Your task to perform on an android device: search for starred emails in the gmail app Image 0: 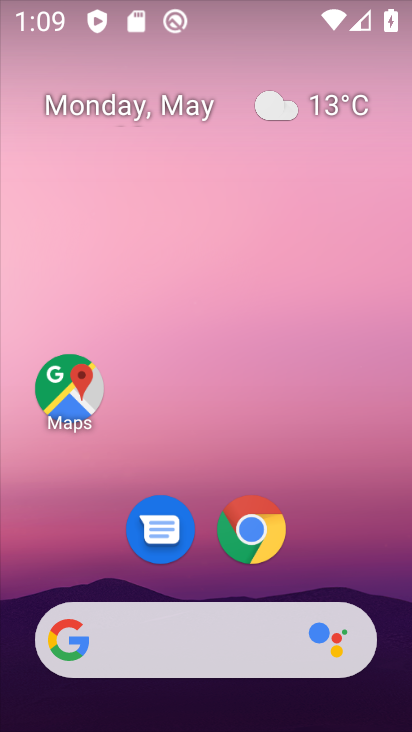
Step 0: drag from (381, 546) to (318, 133)
Your task to perform on an android device: search for starred emails in the gmail app Image 1: 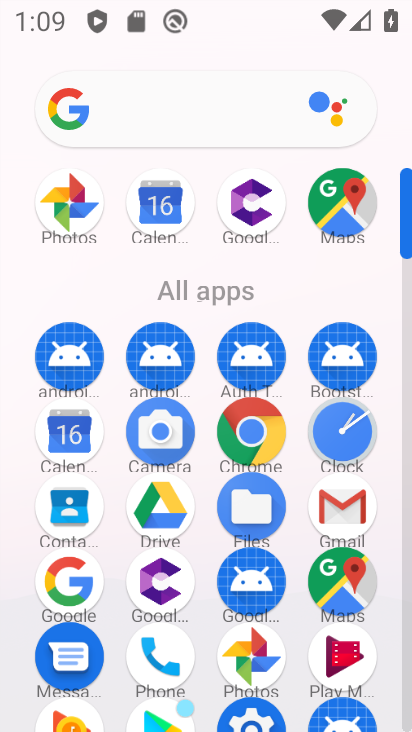
Step 1: click (334, 504)
Your task to perform on an android device: search for starred emails in the gmail app Image 2: 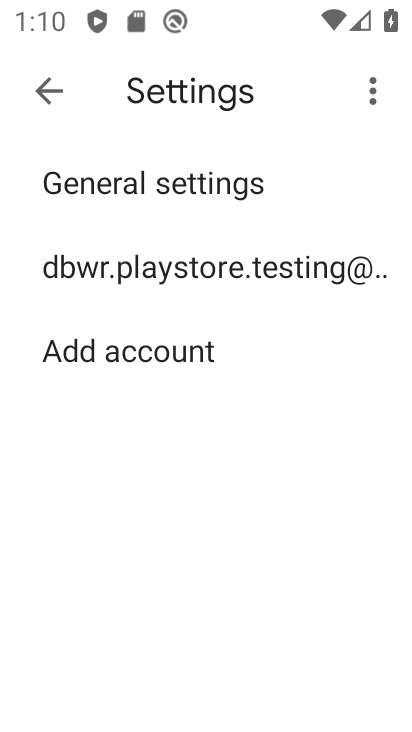
Step 2: click (68, 76)
Your task to perform on an android device: search for starred emails in the gmail app Image 3: 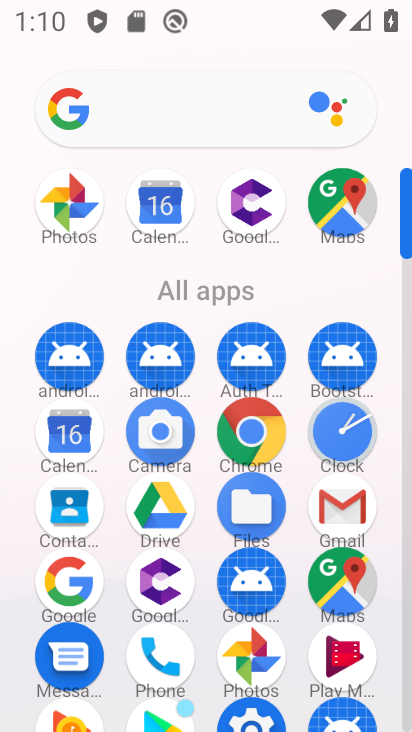
Step 3: click (345, 511)
Your task to perform on an android device: search for starred emails in the gmail app Image 4: 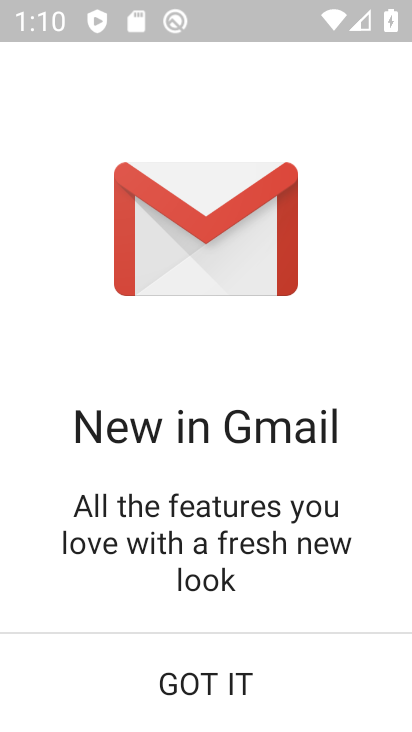
Step 4: click (230, 672)
Your task to perform on an android device: search for starred emails in the gmail app Image 5: 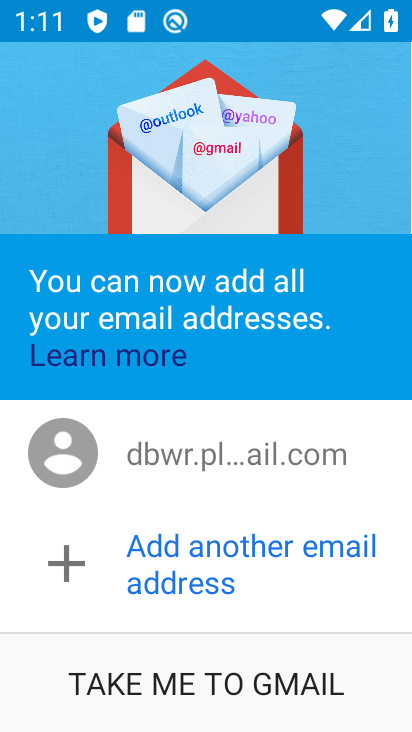
Step 5: click (230, 672)
Your task to perform on an android device: search for starred emails in the gmail app Image 6: 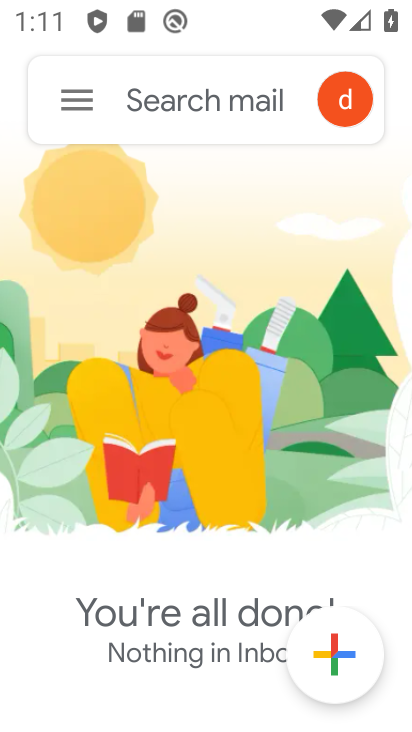
Step 6: click (75, 115)
Your task to perform on an android device: search for starred emails in the gmail app Image 7: 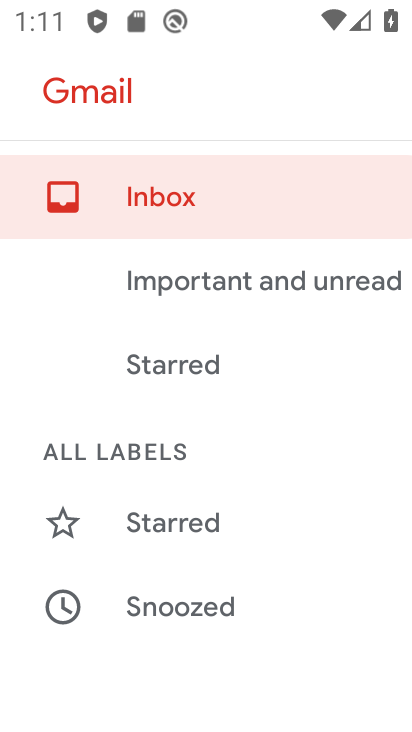
Step 7: click (214, 536)
Your task to perform on an android device: search for starred emails in the gmail app Image 8: 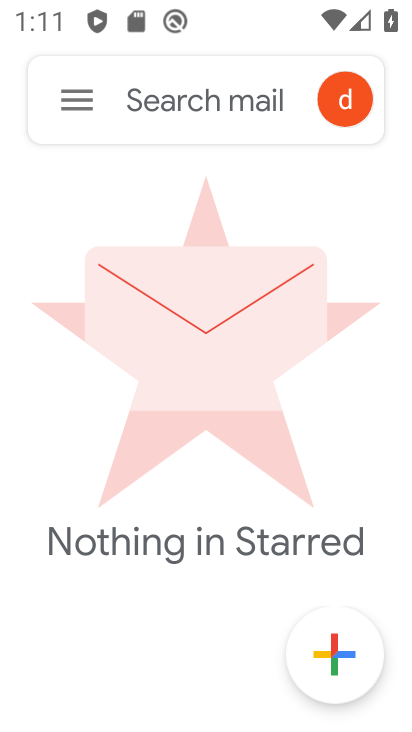
Step 8: task complete